Your task to perform on an android device: Open Chrome and go to settings Image 0: 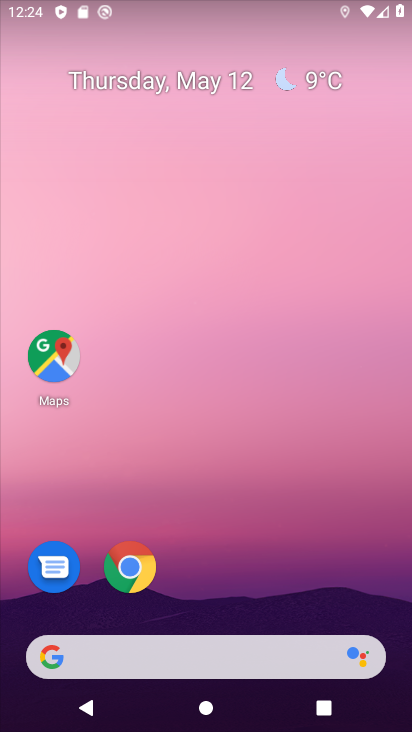
Step 0: click (124, 584)
Your task to perform on an android device: Open Chrome and go to settings Image 1: 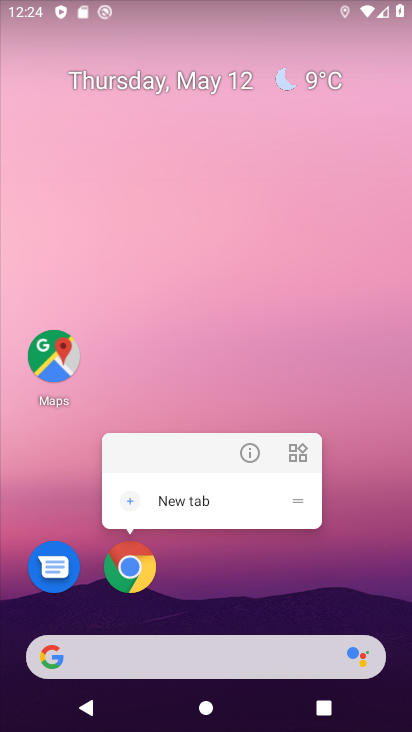
Step 1: click (128, 576)
Your task to perform on an android device: Open Chrome and go to settings Image 2: 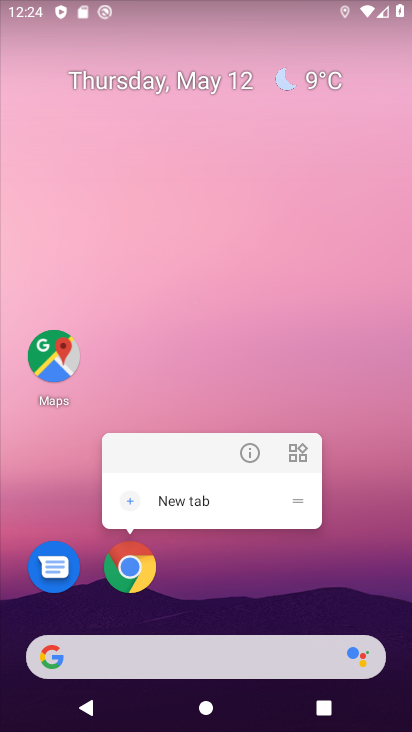
Step 2: click (128, 576)
Your task to perform on an android device: Open Chrome and go to settings Image 3: 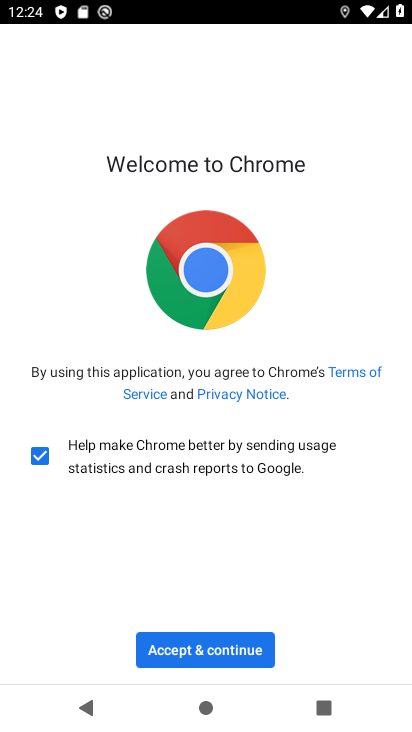
Step 3: click (166, 643)
Your task to perform on an android device: Open Chrome and go to settings Image 4: 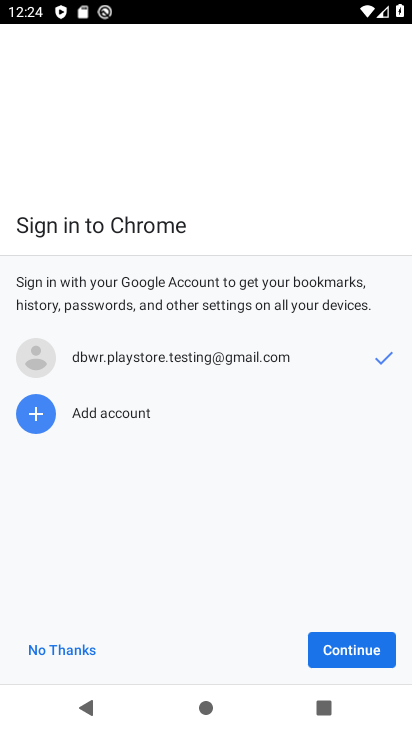
Step 4: click (371, 658)
Your task to perform on an android device: Open Chrome and go to settings Image 5: 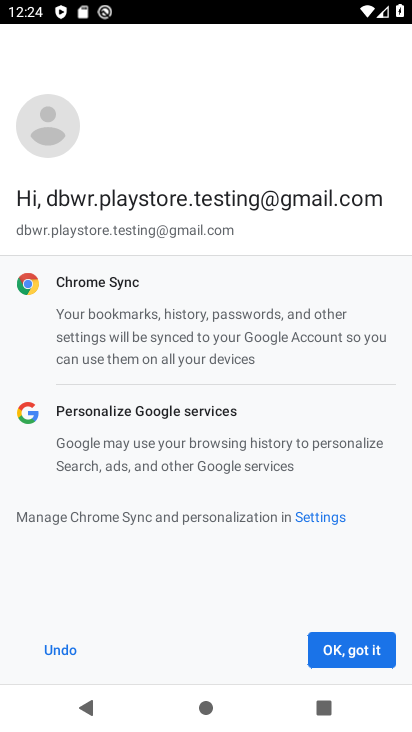
Step 5: click (369, 658)
Your task to perform on an android device: Open Chrome and go to settings Image 6: 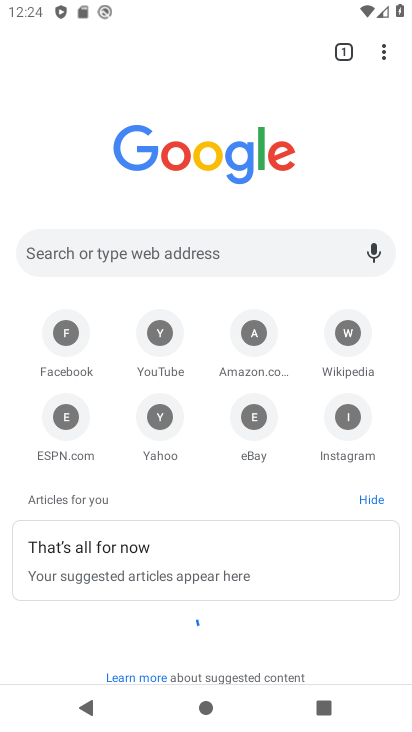
Step 6: task complete